Your task to perform on an android device: open the mobile data screen to see how much data has been used Image 0: 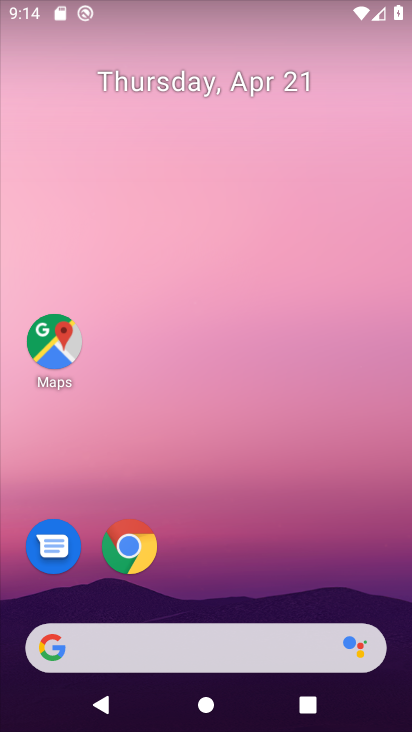
Step 0: drag from (328, 522) to (348, 76)
Your task to perform on an android device: open the mobile data screen to see how much data has been used Image 1: 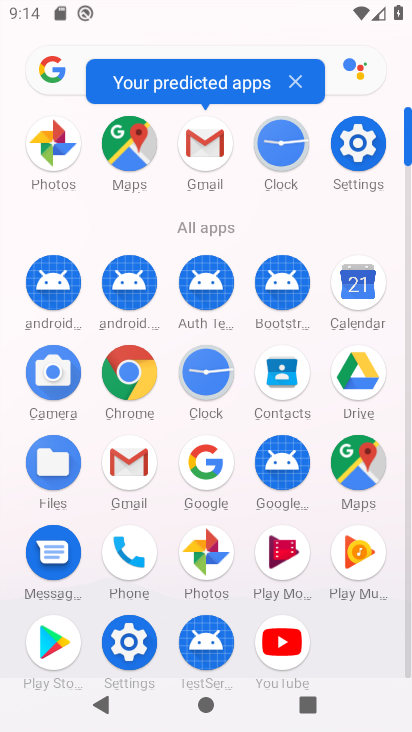
Step 1: click (363, 151)
Your task to perform on an android device: open the mobile data screen to see how much data has been used Image 2: 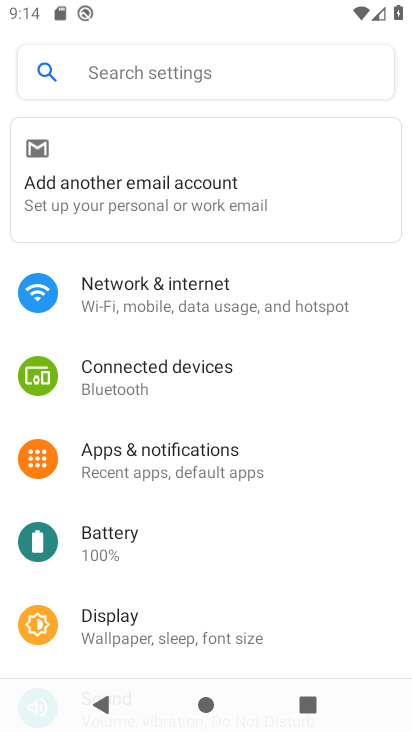
Step 2: click (267, 296)
Your task to perform on an android device: open the mobile data screen to see how much data has been used Image 3: 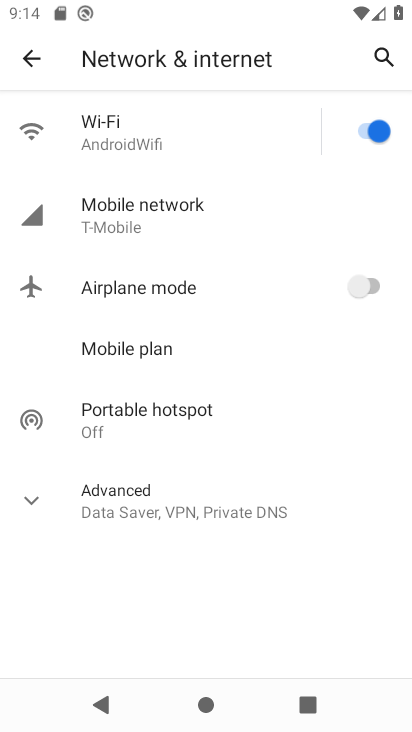
Step 3: click (141, 215)
Your task to perform on an android device: open the mobile data screen to see how much data has been used Image 4: 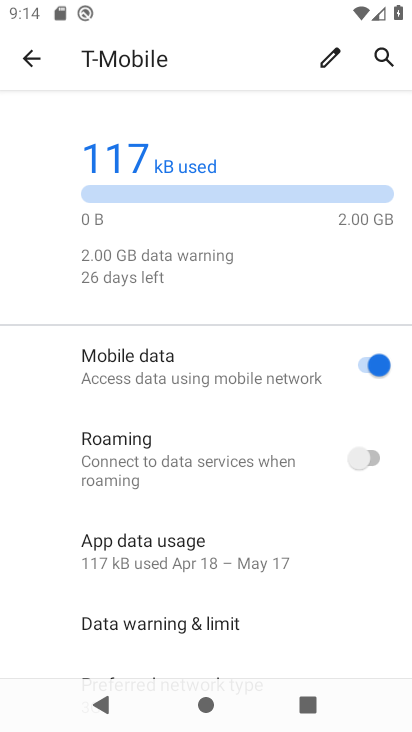
Step 4: drag from (313, 532) to (337, 273)
Your task to perform on an android device: open the mobile data screen to see how much data has been used Image 5: 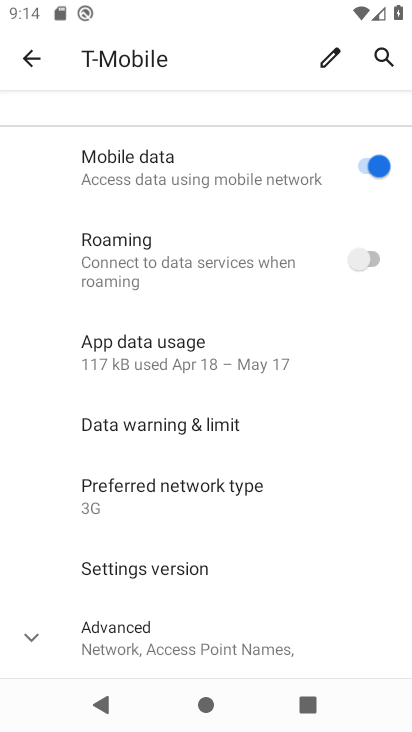
Step 5: click (213, 361)
Your task to perform on an android device: open the mobile data screen to see how much data has been used Image 6: 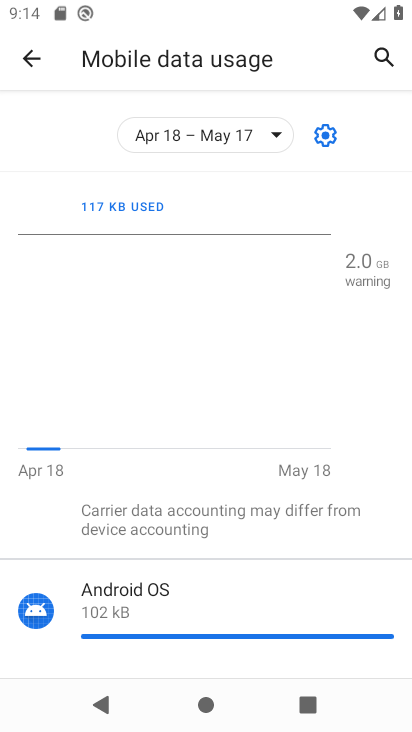
Step 6: task complete